Your task to perform on an android device: Open Maps and search for coffee Image 0: 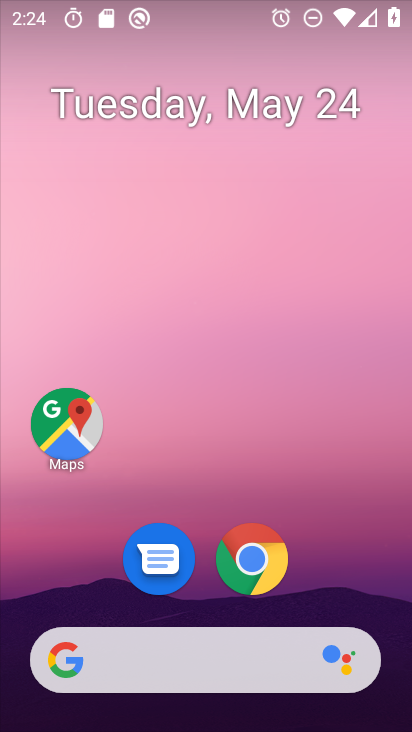
Step 0: click (82, 433)
Your task to perform on an android device: Open Maps and search for coffee Image 1: 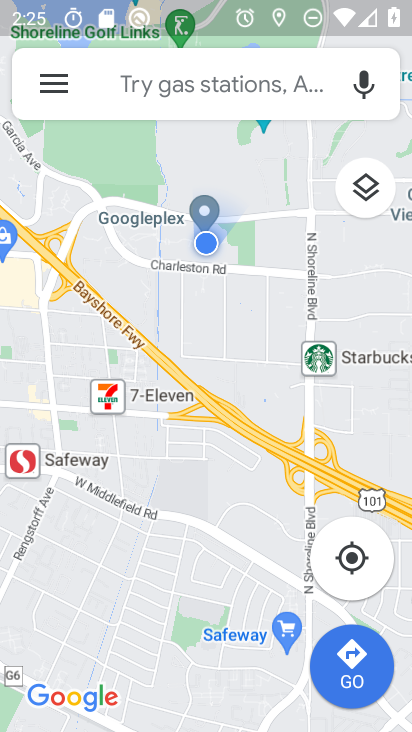
Step 1: click (134, 92)
Your task to perform on an android device: Open Maps and search for coffee Image 2: 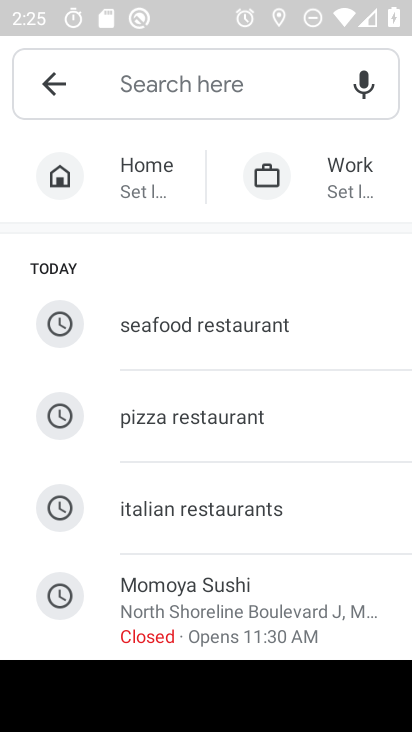
Step 2: type "coffee"
Your task to perform on an android device: Open Maps and search for coffee Image 3: 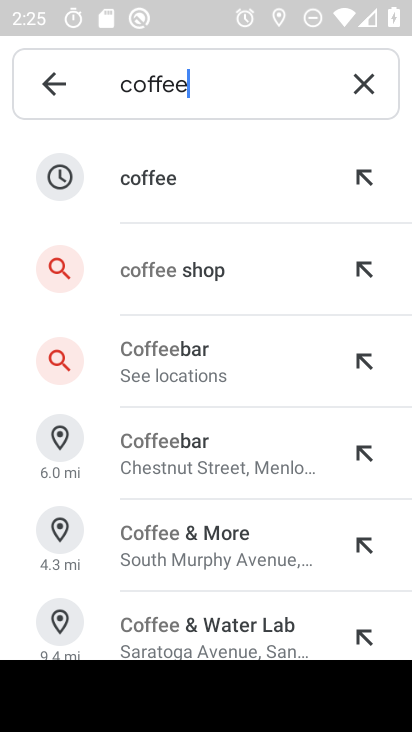
Step 3: click (198, 270)
Your task to perform on an android device: Open Maps and search for coffee Image 4: 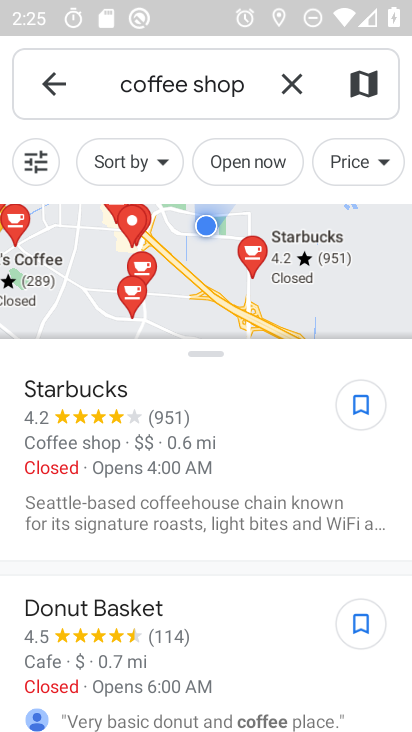
Step 4: task complete